Your task to perform on an android device: add a contact Image 0: 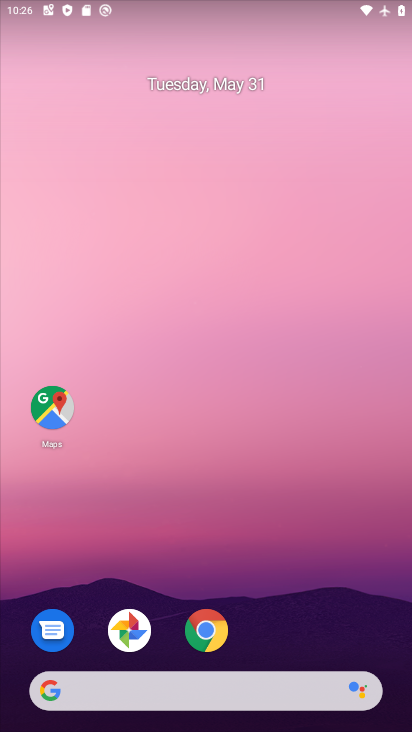
Step 0: drag from (249, 634) to (263, 258)
Your task to perform on an android device: add a contact Image 1: 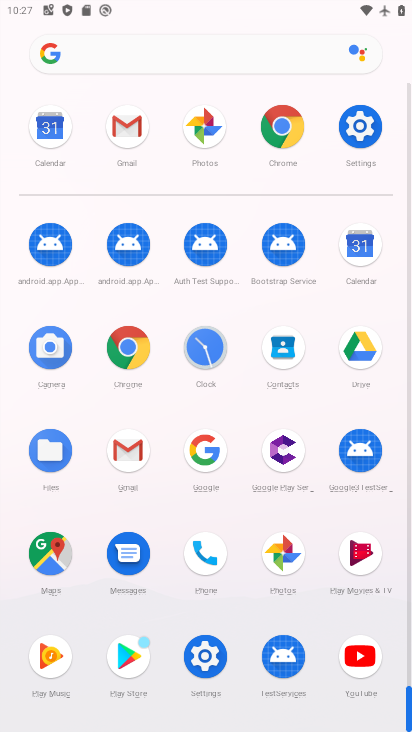
Step 1: click (195, 552)
Your task to perform on an android device: add a contact Image 2: 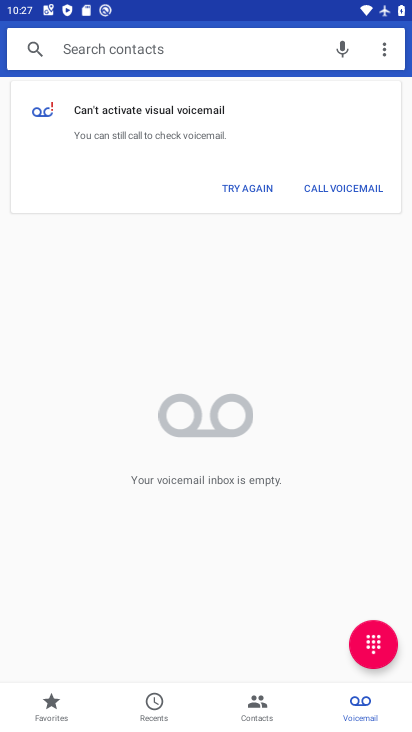
Step 2: click (245, 709)
Your task to perform on an android device: add a contact Image 3: 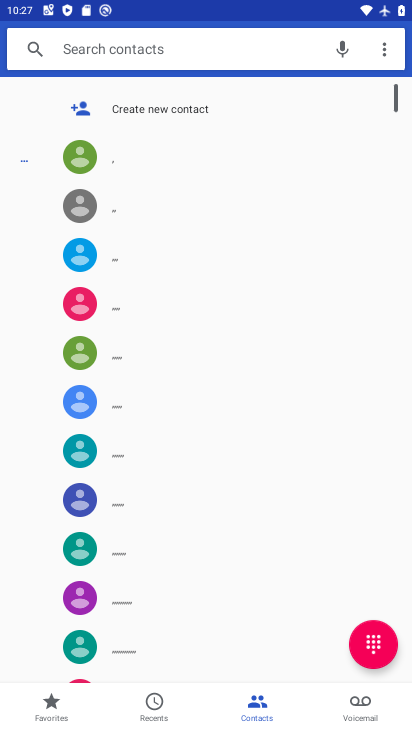
Step 3: click (163, 110)
Your task to perform on an android device: add a contact Image 4: 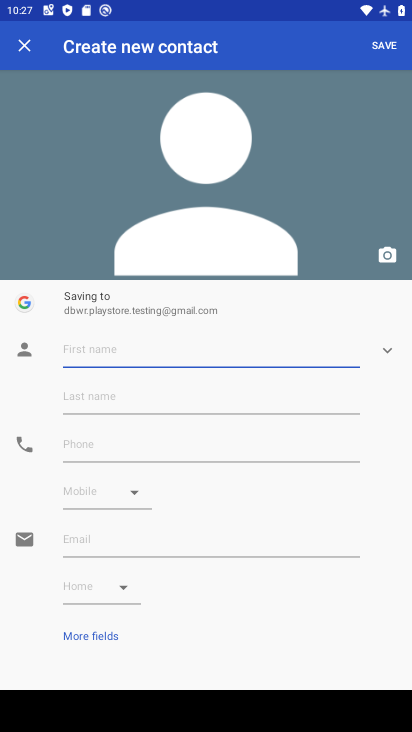
Step 4: click (189, 352)
Your task to perform on an android device: add a contact Image 5: 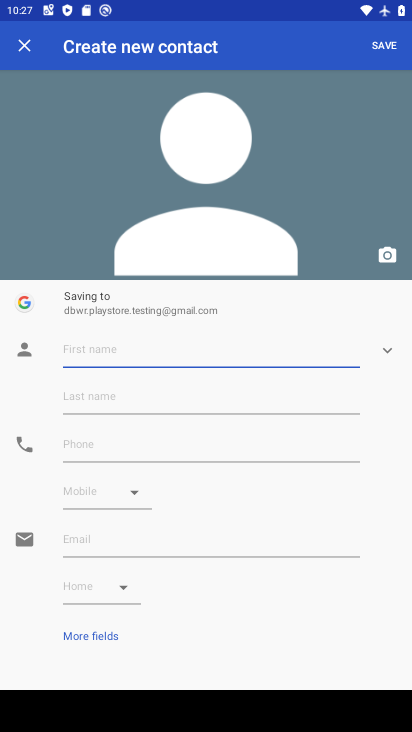
Step 5: type "sandu "
Your task to perform on an android device: add a contact Image 6: 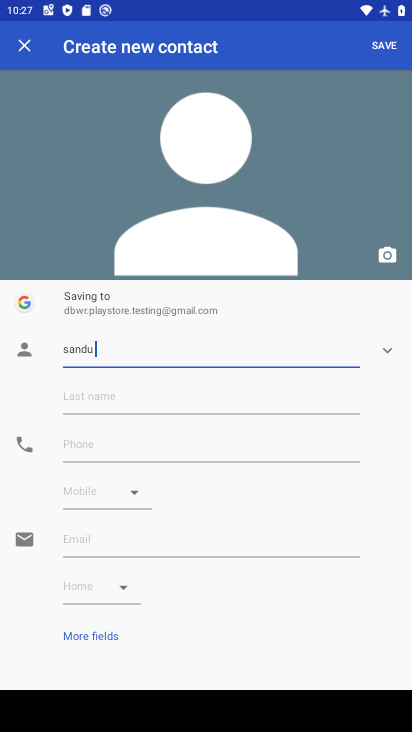
Step 6: click (203, 437)
Your task to perform on an android device: add a contact Image 7: 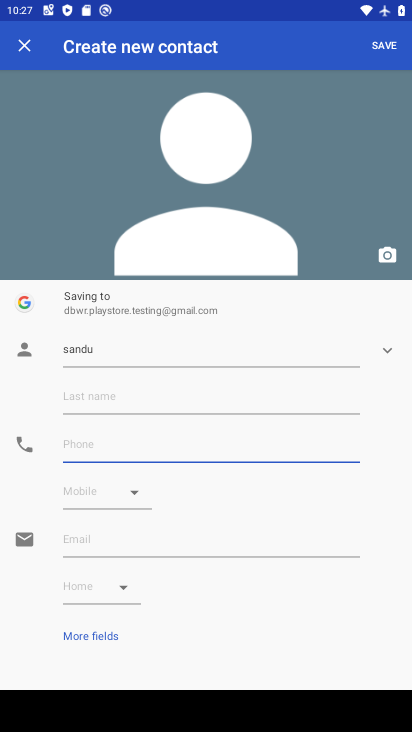
Step 7: type "8383838383883929292010192838446"
Your task to perform on an android device: add a contact Image 8: 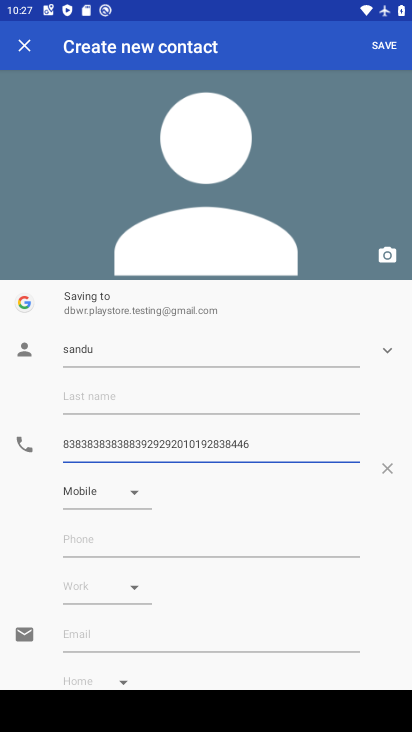
Step 8: click (371, 52)
Your task to perform on an android device: add a contact Image 9: 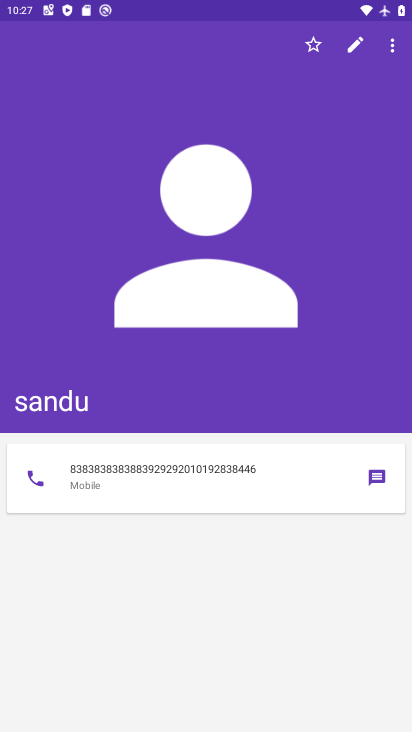
Step 9: task complete